Your task to perform on an android device: change keyboard looks Image 0: 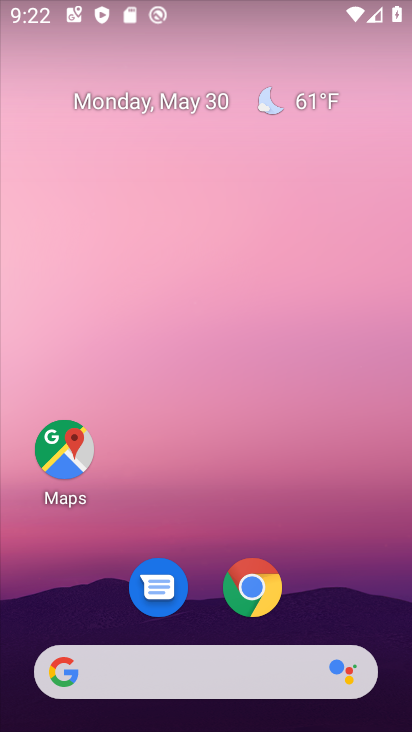
Step 0: drag from (239, 640) to (165, 9)
Your task to perform on an android device: change keyboard looks Image 1: 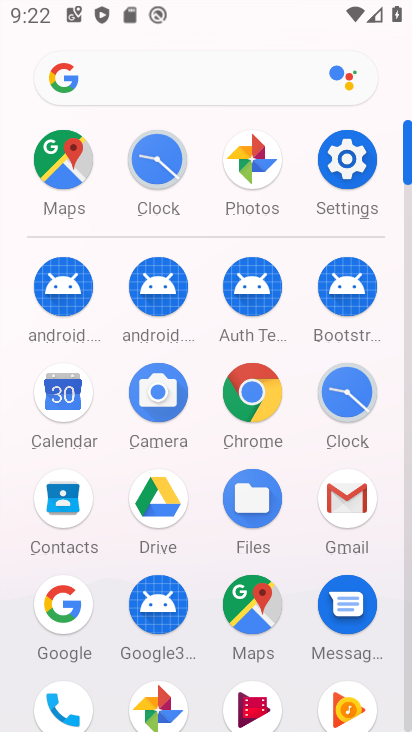
Step 1: click (343, 185)
Your task to perform on an android device: change keyboard looks Image 2: 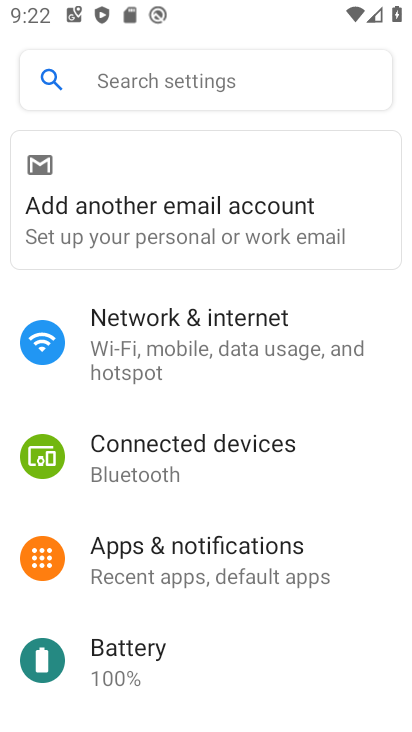
Step 2: drag from (253, 621) to (226, 82)
Your task to perform on an android device: change keyboard looks Image 3: 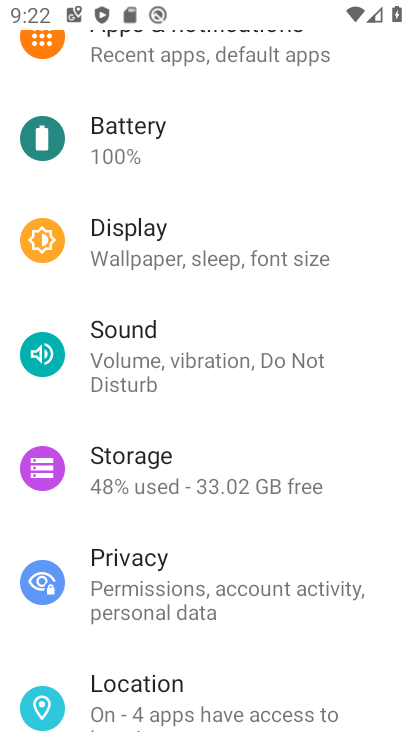
Step 3: drag from (262, 635) to (222, 8)
Your task to perform on an android device: change keyboard looks Image 4: 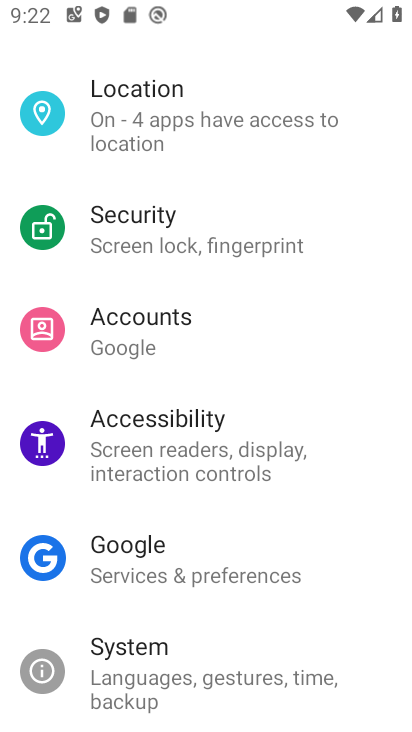
Step 4: click (168, 631)
Your task to perform on an android device: change keyboard looks Image 5: 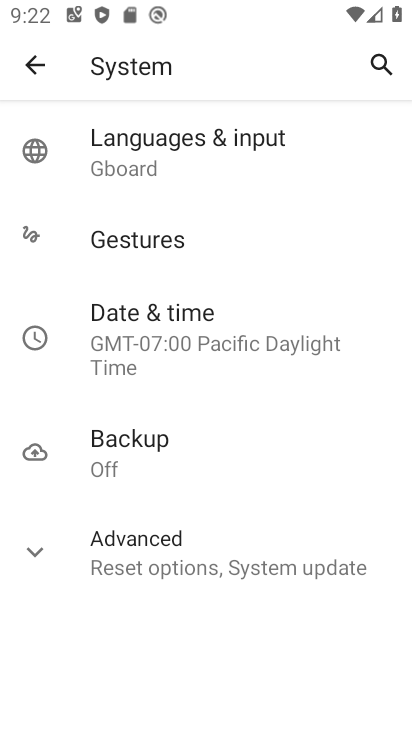
Step 5: click (135, 173)
Your task to perform on an android device: change keyboard looks Image 6: 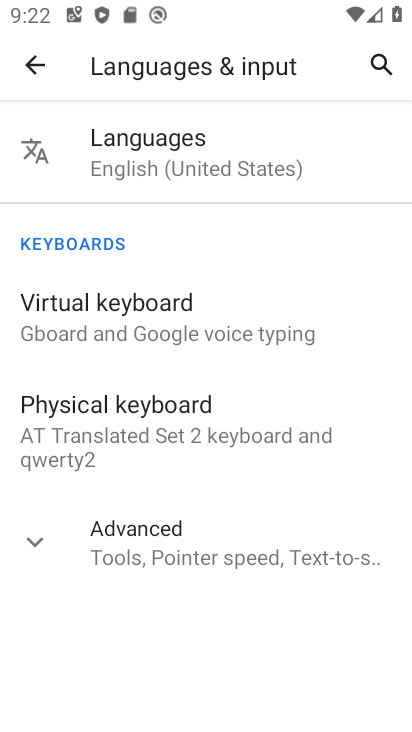
Step 6: click (157, 153)
Your task to perform on an android device: change keyboard looks Image 7: 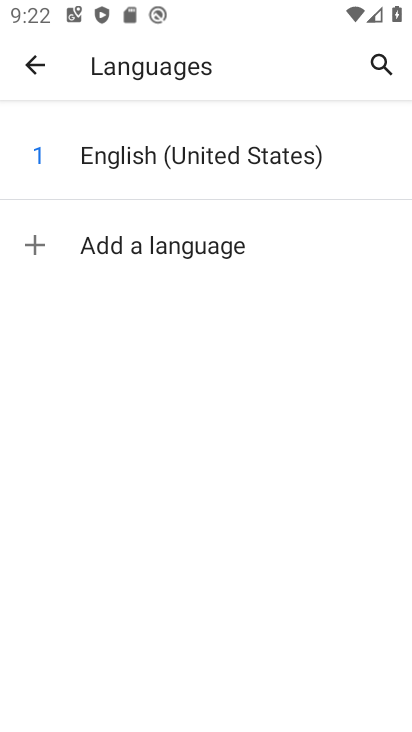
Step 7: task complete